Your task to perform on an android device: find photos in the google photos app Image 0: 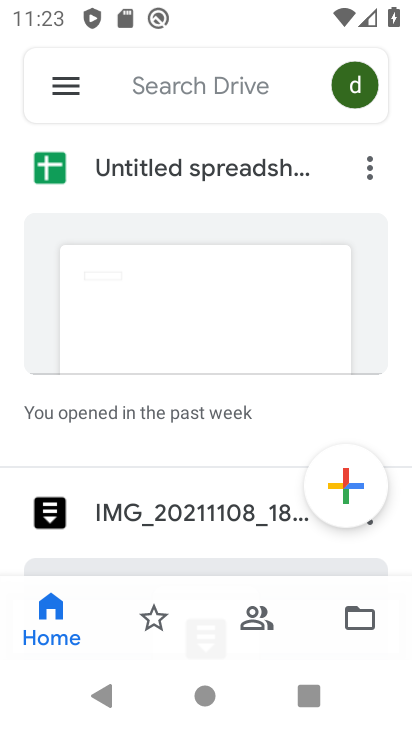
Step 0: press home button
Your task to perform on an android device: find photos in the google photos app Image 1: 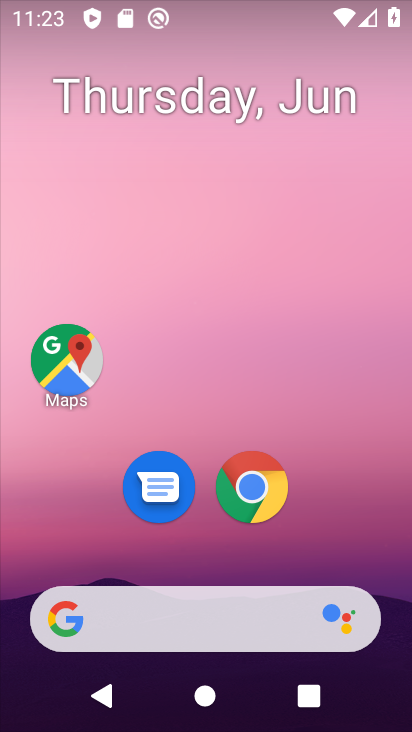
Step 1: drag from (87, 607) to (212, 179)
Your task to perform on an android device: find photos in the google photos app Image 2: 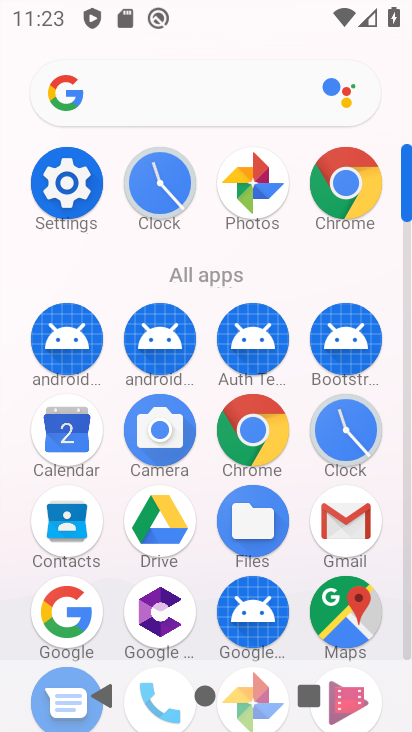
Step 2: drag from (197, 592) to (246, 397)
Your task to perform on an android device: find photos in the google photos app Image 3: 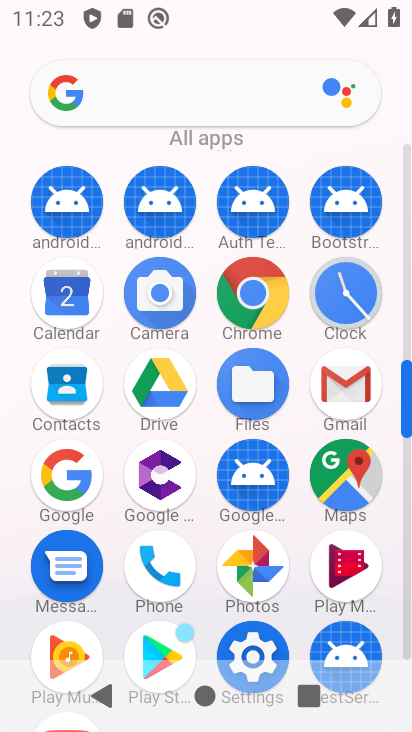
Step 3: click (265, 579)
Your task to perform on an android device: find photos in the google photos app Image 4: 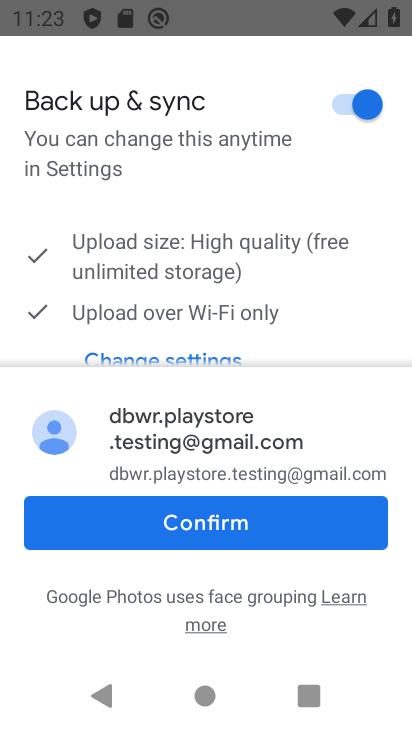
Step 4: click (237, 537)
Your task to perform on an android device: find photos in the google photos app Image 5: 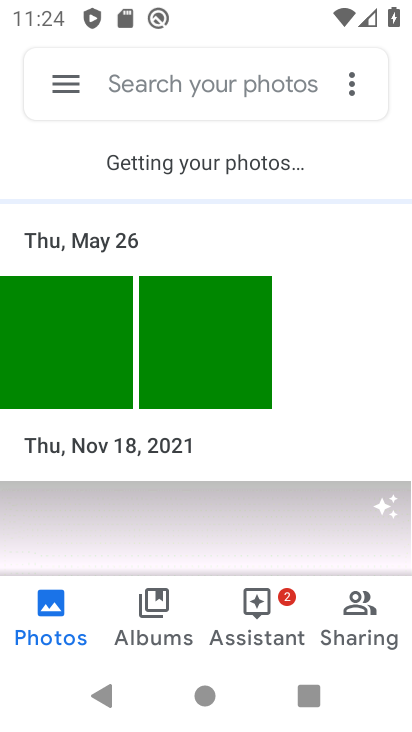
Step 5: task complete